Your task to perform on an android device: Open sound settings Image 0: 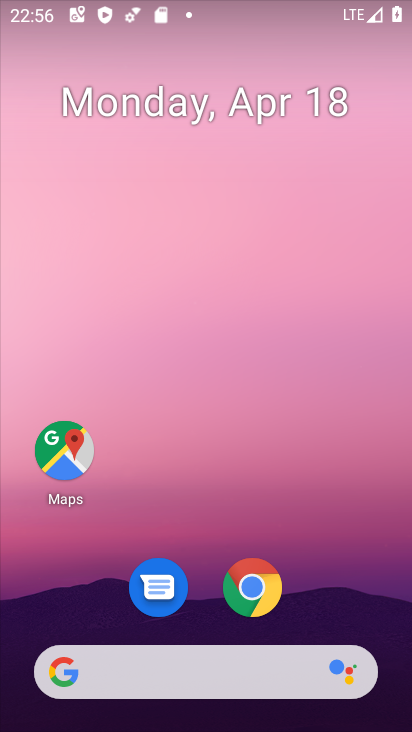
Step 0: drag from (361, 586) to (357, 134)
Your task to perform on an android device: Open sound settings Image 1: 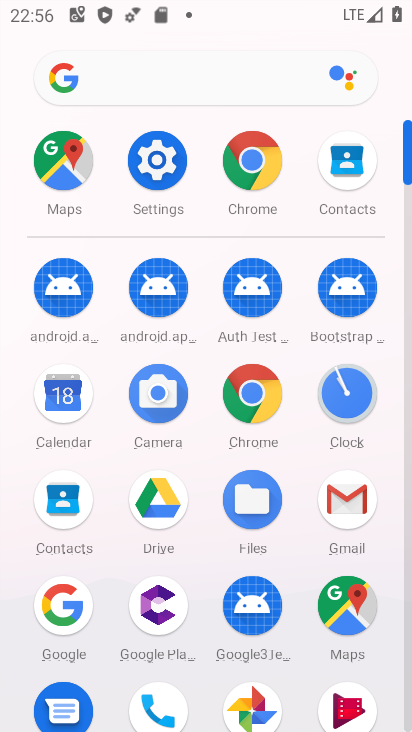
Step 1: click (157, 171)
Your task to perform on an android device: Open sound settings Image 2: 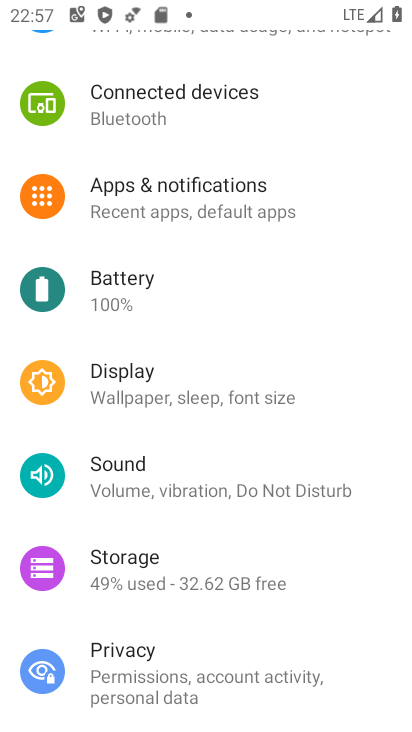
Step 2: click (116, 470)
Your task to perform on an android device: Open sound settings Image 3: 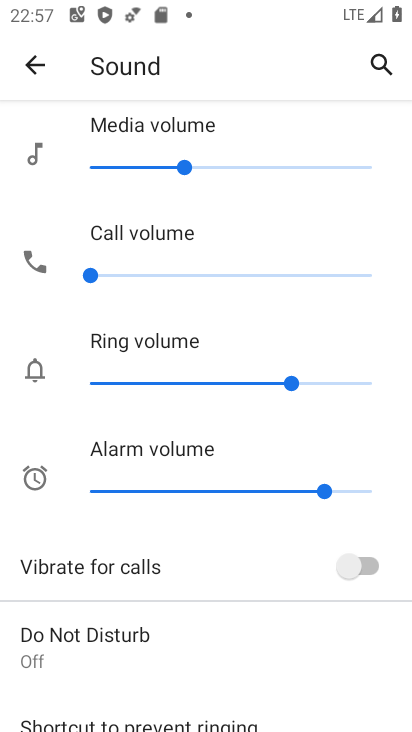
Step 3: task complete